Your task to perform on an android device: Open Maps and search for coffee Image 0: 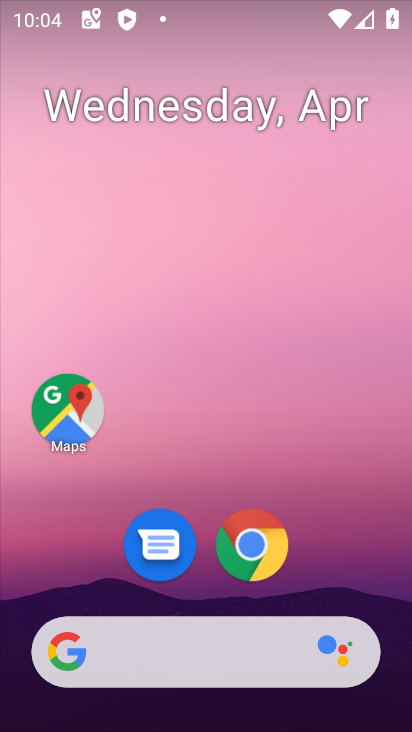
Step 0: click (69, 412)
Your task to perform on an android device: Open Maps and search for coffee Image 1: 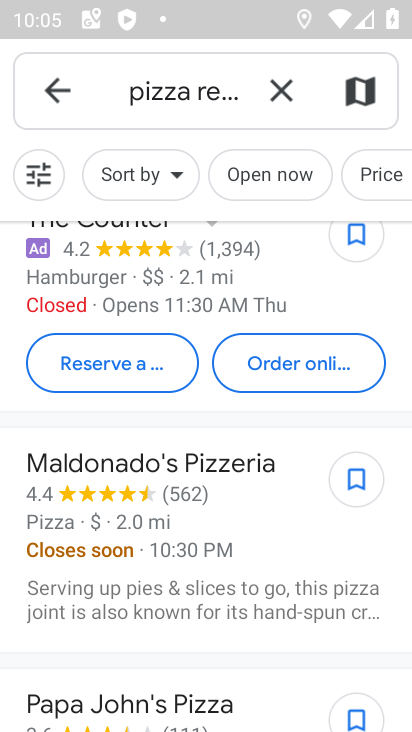
Step 1: click (274, 94)
Your task to perform on an android device: Open Maps and search for coffee Image 2: 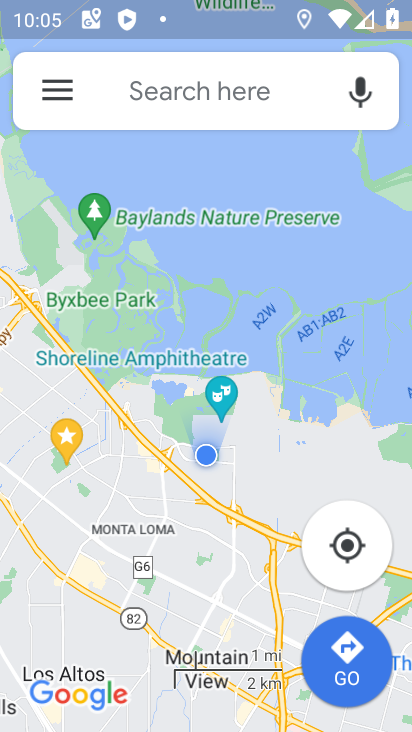
Step 2: click (139, 85)
Your task to perform on an android device: Open Maps and search for coffee Image 3: 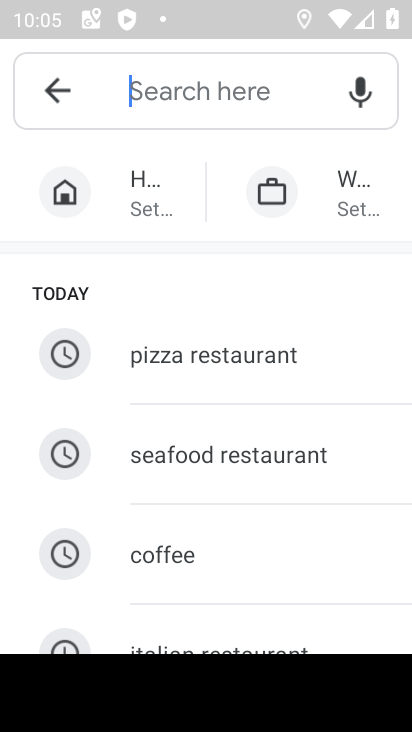
Step 3: type "coffee"
Your task to perform on an android device: Open Maps and search for coffee Image 4: 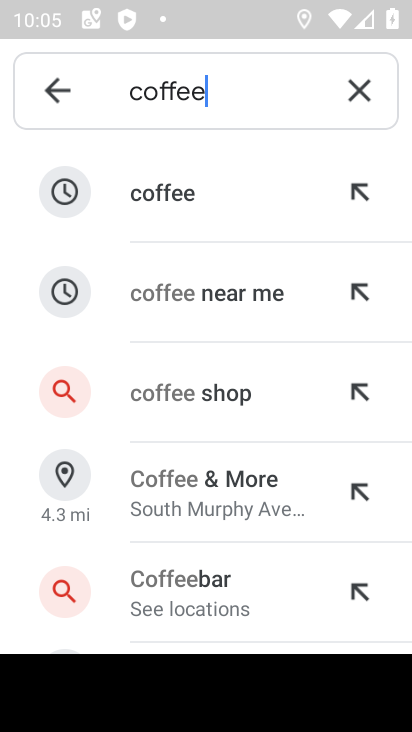
Step 4: click (192, 203)
Your task to perform on an android device: Open Maps and search for coffee Image 5: 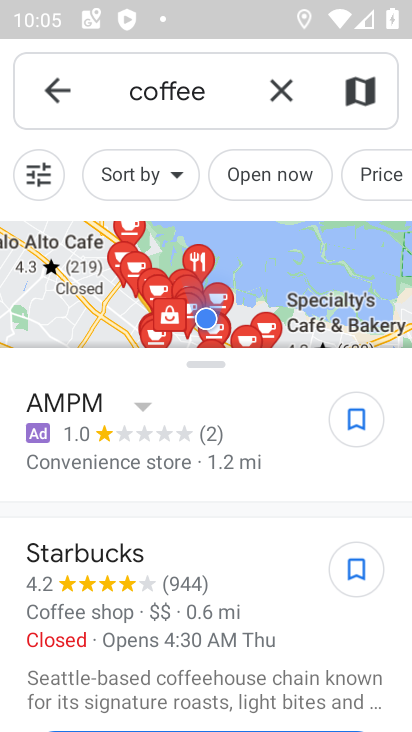
Step 5: task complete